Your task to perform on an android device: Go to accessibility settings Image 0: 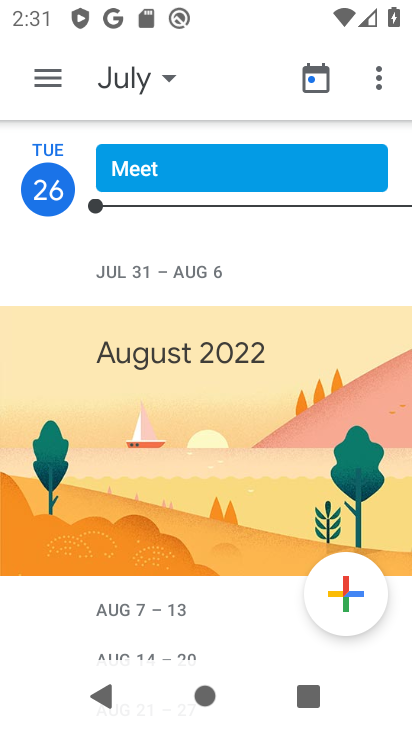
Step 0: press back button
Your task to perform on an android device: Go to accessibility settings Image 1: 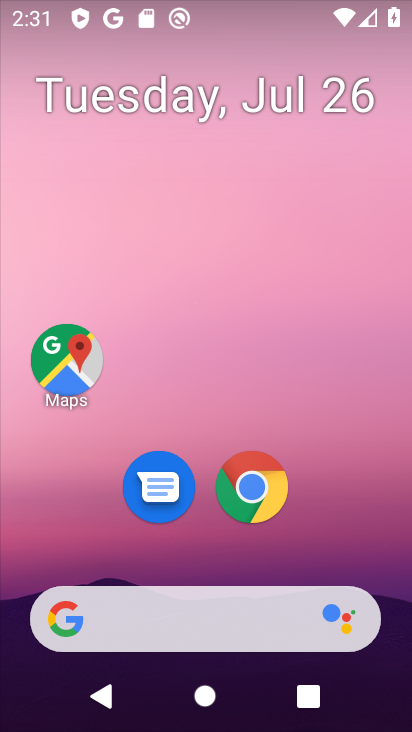
Step 1: drag from (171, 585) to (294, 42)
Your task to perform on an android device: Go to accessibility settings Image 2: 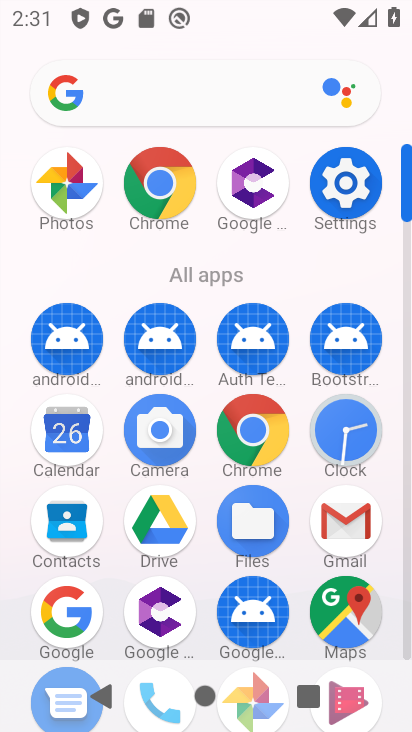
Step 2: click (342, 172)
Your task to perform on an android device: Go to accessibility settings Image 3: 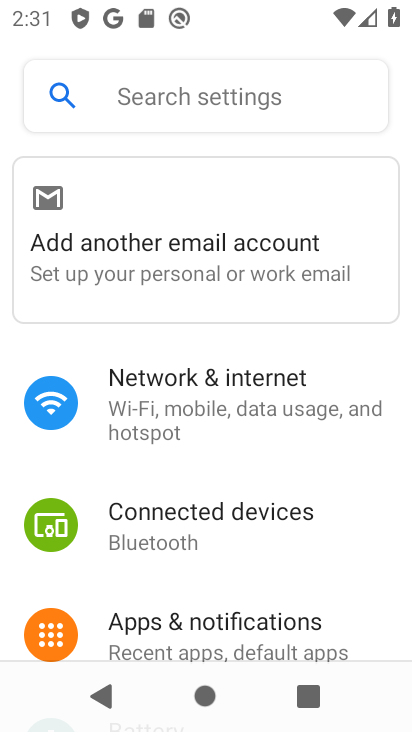
Step 3: drag from (175, 608) to (316, 85)
Your task to perform on an android device: Go to accessibility settings Image 4: 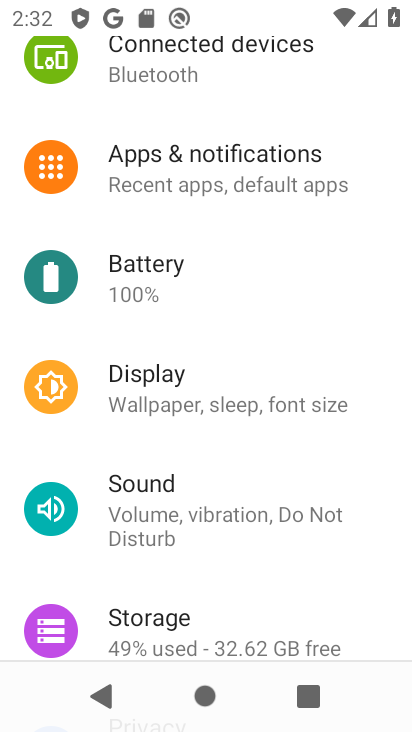
Step 4: drag from (208, 612) to (263, 159)
Your task to perform on an android device: Go to accessibility settings Image 5: 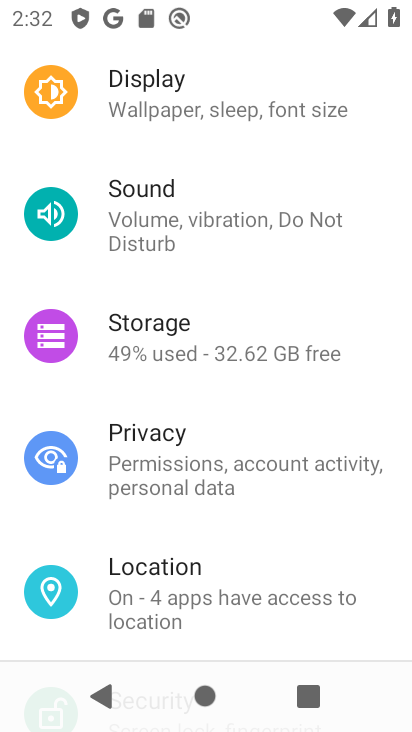
Step 5: drag from (219, 557) to (308, 51)
Your task to perform on an android device: Go to accessibility settings Image 6: 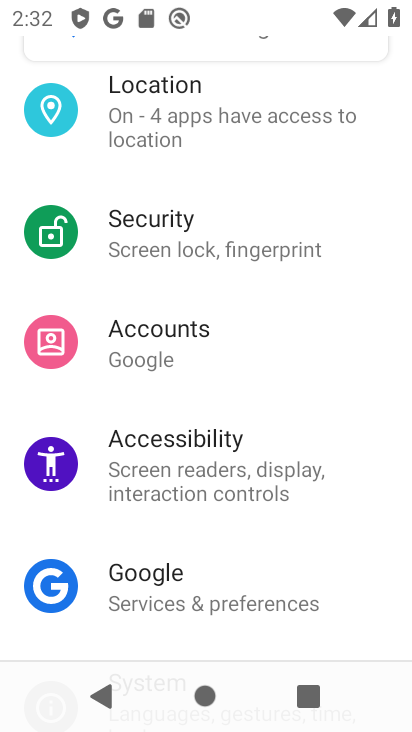
Step 6: click (146, 396)
Your task to perform on an android device: Go to accessibility settings Image 7: 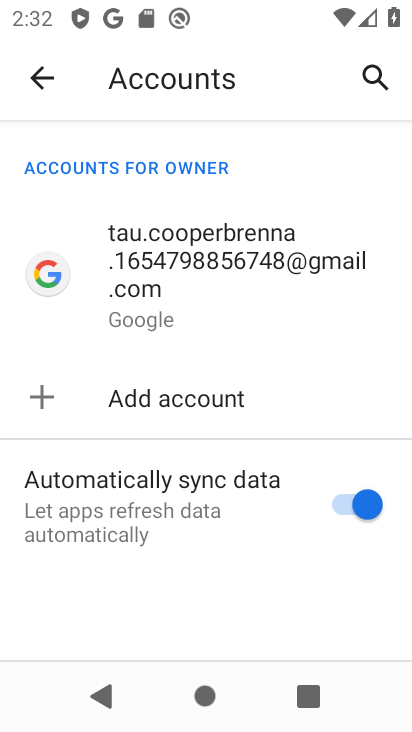
Step 7: click (40, 61)
Your task to perform on an android device: Go to accessibility settings Image 8: 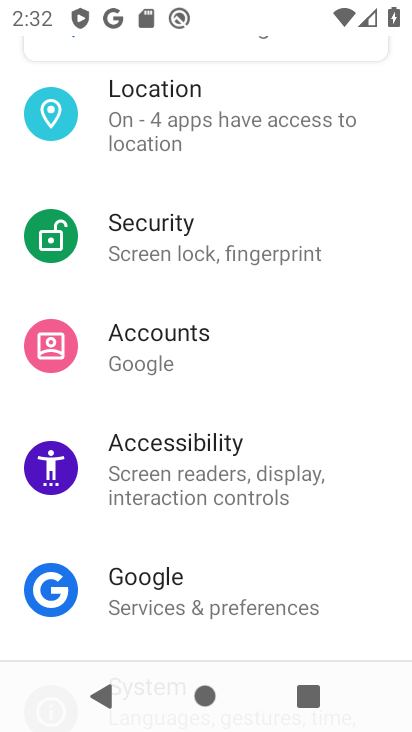
Step 8: click (151, 482)
Your task to perform on an android device: Go to accessibility settings Image 9: 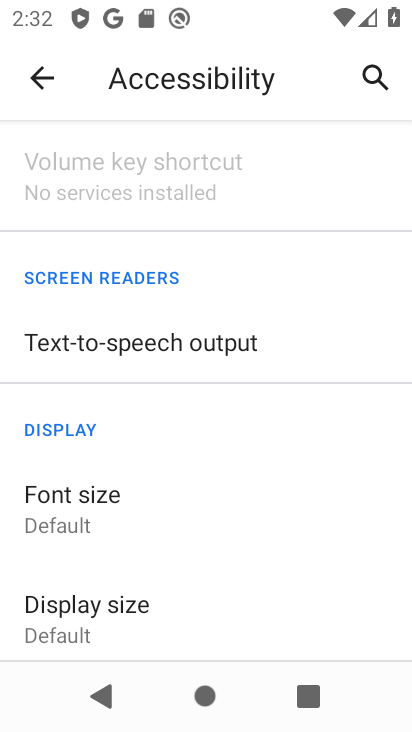
Step 9: task complete